Your task to perform on an android device: delete browsing data in the chrome app Image 0: 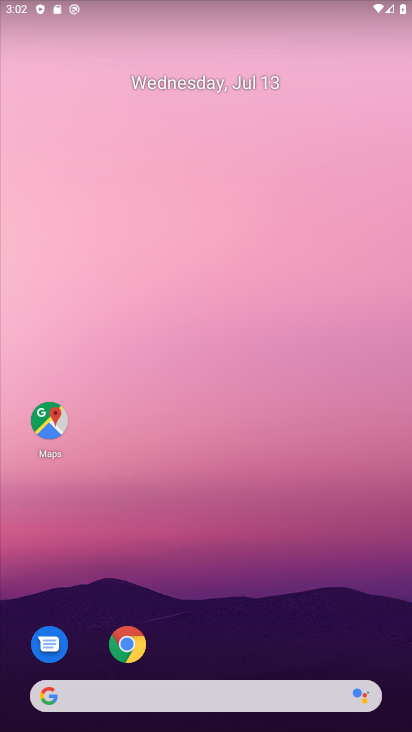
Step 0: click (128, 645)
Your task to perform on an android device: delete browsing data in the chrome app Image 1: 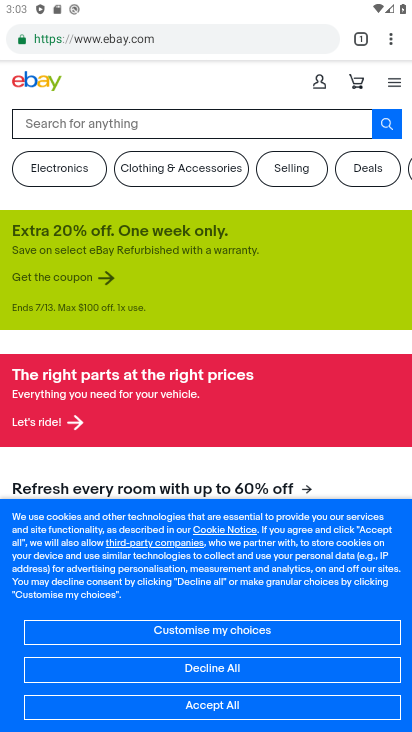
Step 1: click (390, 40)
Your task to perform on an android device: delete browsing data in the chrome app Image 2: 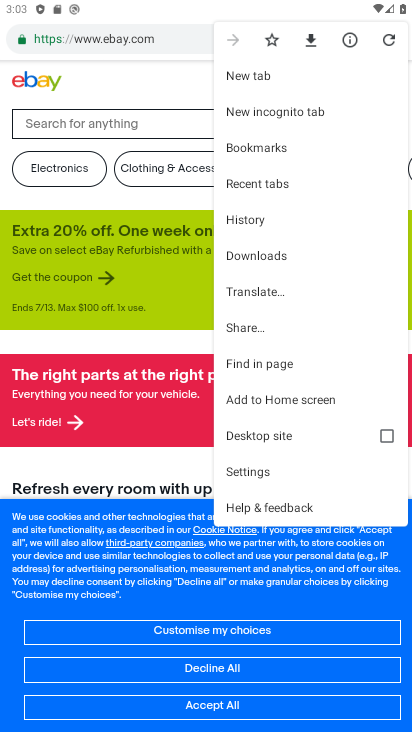
Step 2: click (259, 468)
Your task to perform on an android device: delete browsing data in the chrome app Image 3: 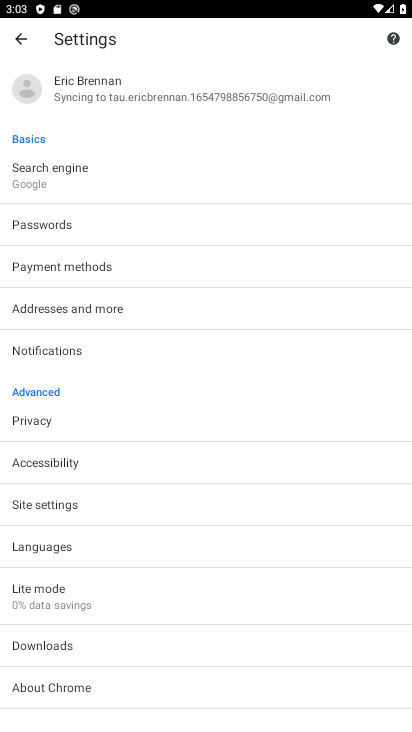
Step 3: click (42, 418)
Your task to perform on an android device: delete browsing data in the chrome app Image 4: 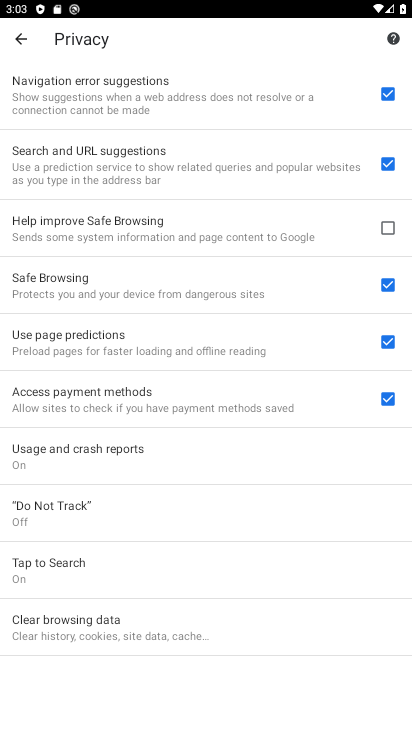
Step 4: click (136, 617)
Your task to perform on an android device: delete browsing data in the chrome app Image 5: 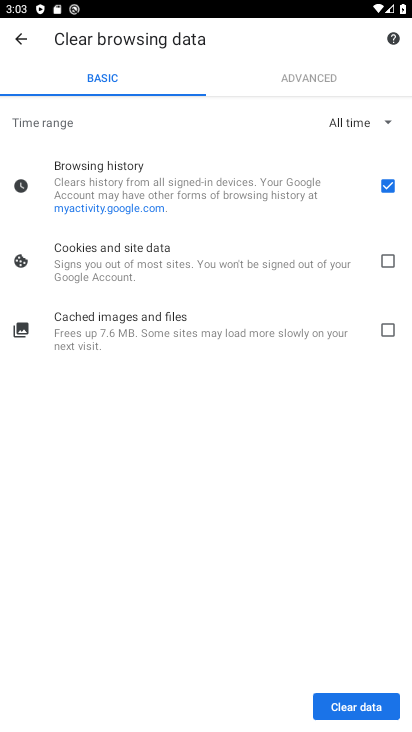
Step 5: click (391, 260)
Your task to perform on an android device: delete browsing data in the chrome app Image 6: 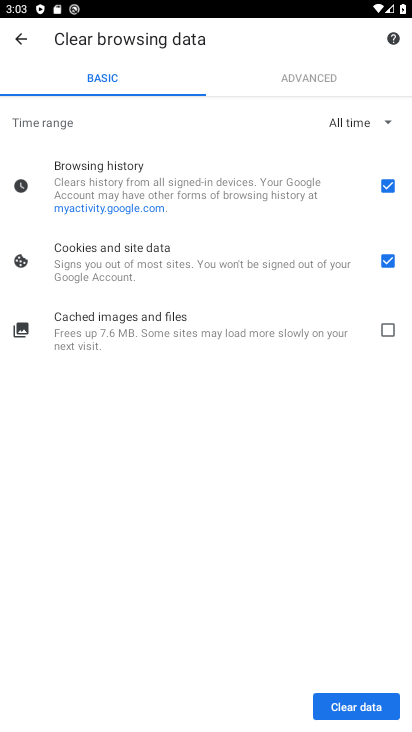
Step 6: click (390, 317)
Your task to perform on an android device: delete browsing data in the chrome app Image 7: 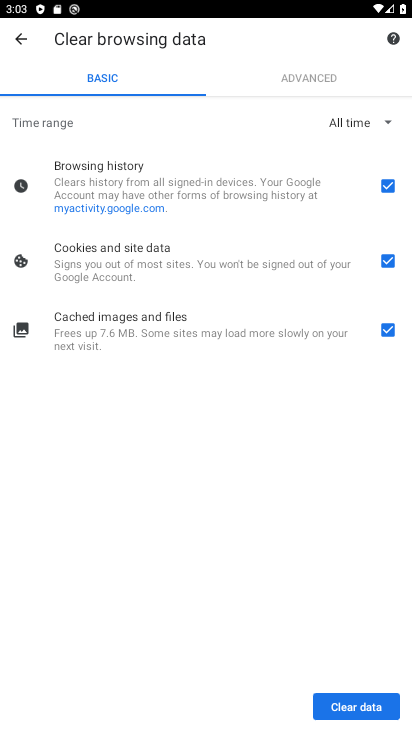
Step 7: click (353, 711)
Your task to perform on an android device: delete browsing data in the chrome app Image 8: 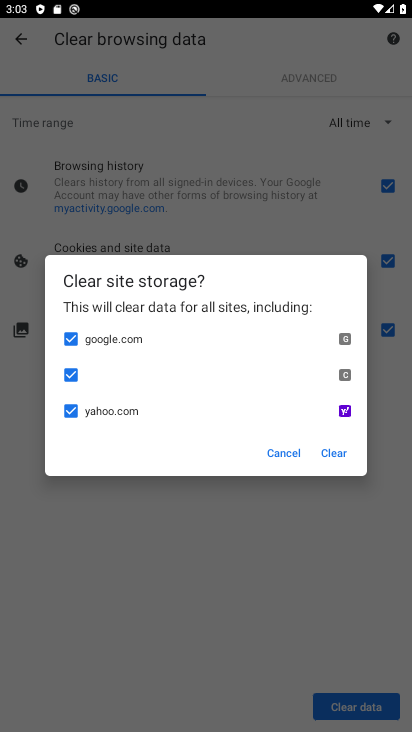
Step 8: click (332, 453)
Your task to perform on an android device: delete browsing data in the chrome app Image 9: 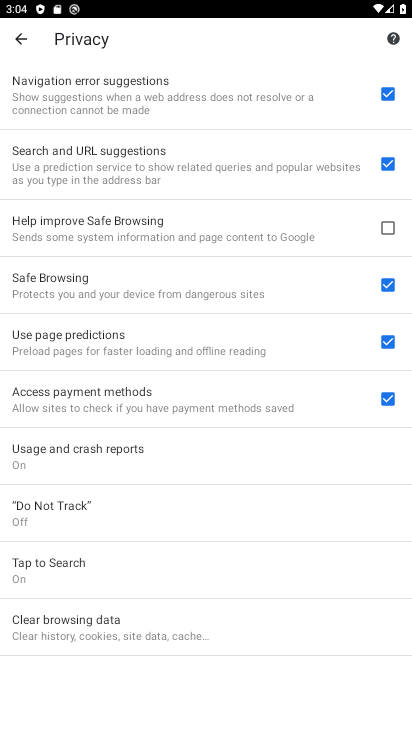
Step 9: task complete